Your task to perform on an android device: turn on airplane mode Image 0: 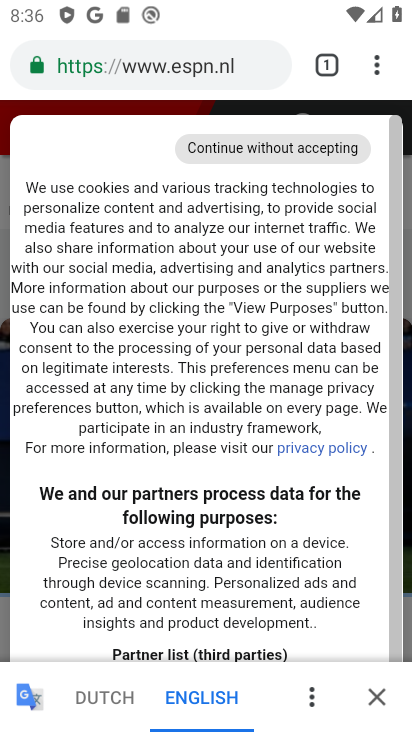
Step 0: press home button
Your task to perform on an android device: turn on airplane mode Image 1: 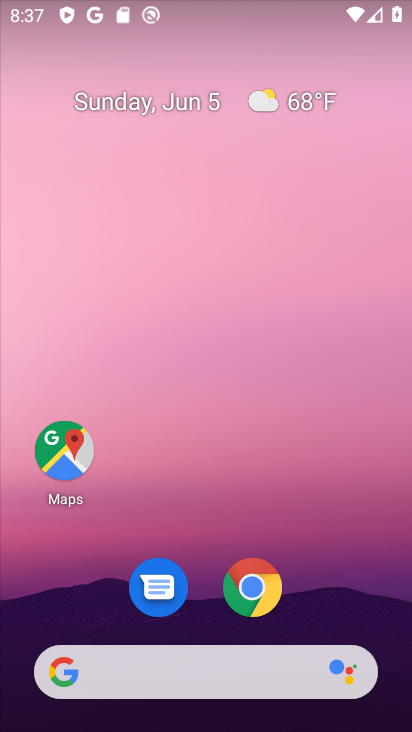
Step 1: drag from (340, 596) to (245, 0)
Your task to perform on an android device: turn on airplane mode Image 2: 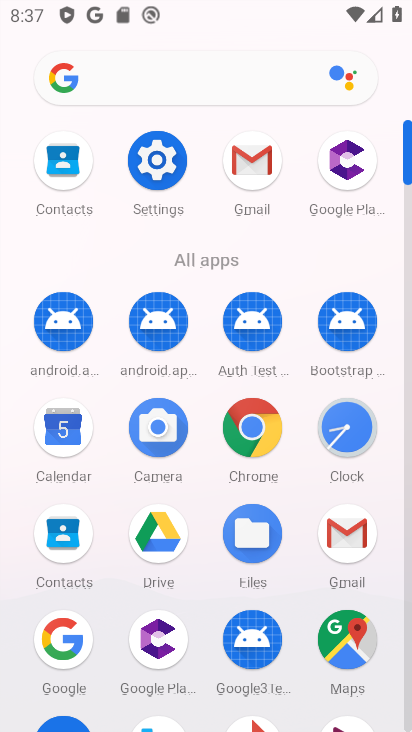
Step 2: click (146, 161)
Your task to perform on an android device: turn on airplane mode Image 3: 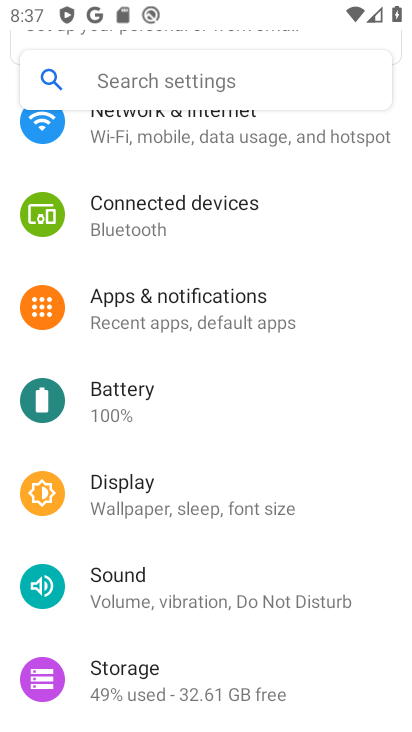
Step 3: click (182, 112)
Your task to perform on an android device: turn on airplane mode Image 4: 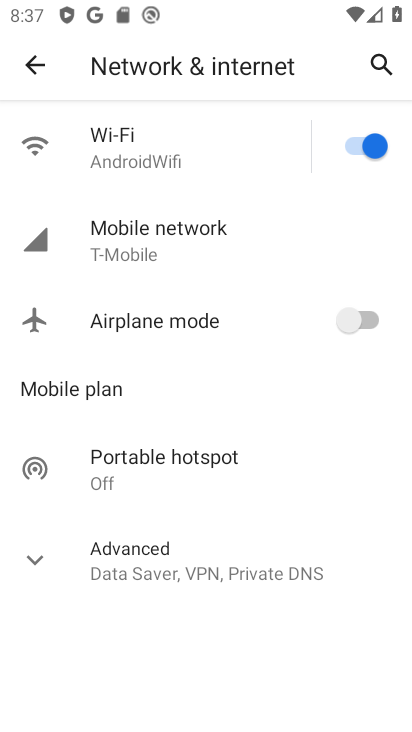
Step 4: click (388, 316)
Your task to perform on an android device: turn on airplane mode Image 5: 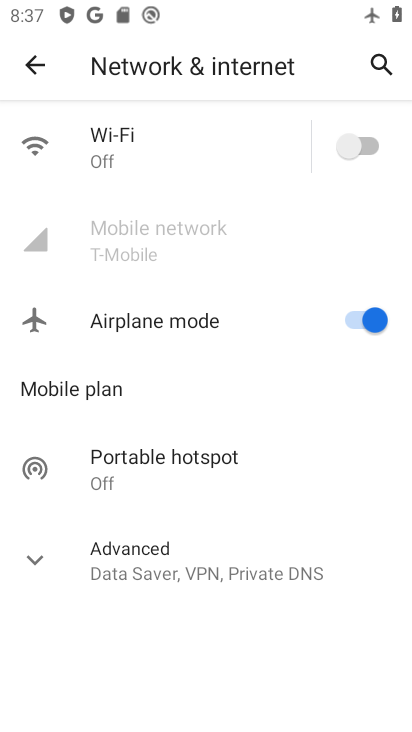
Step 5: task complete